Your task to perform on an android device: Open calendar and show me the second week of next month Image 0: 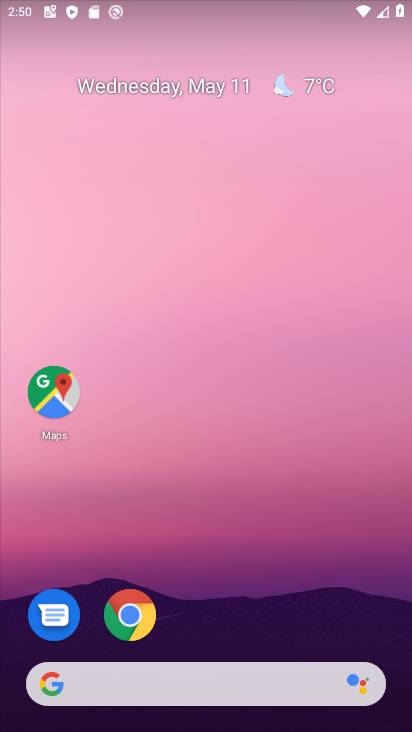
Step 0: drag from (300, 598) to (322, 94)
Your task to perform on an android device: Open calendar and show me the second week of next month Image 1: 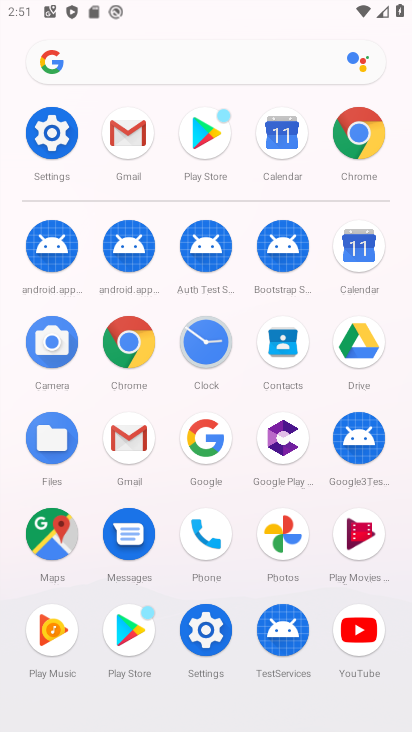
Step 1: click (365, 254)
Your task to perform on an android device: Open calendar and show me the second week of next month Image 2: 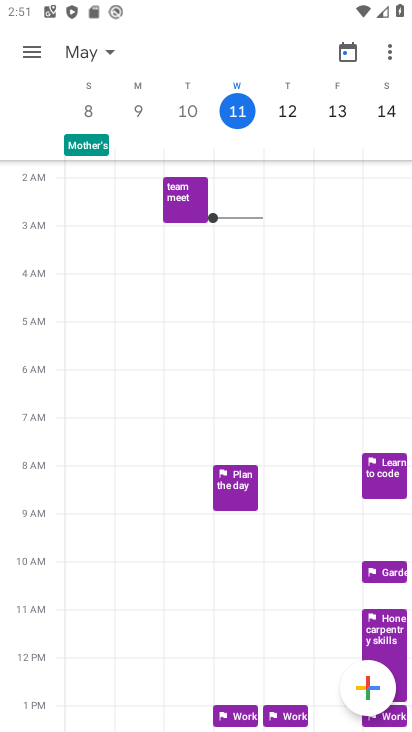
Step 2: click (92, 51)
Your task to perform on an android device: Open calendar and show me the second week of next month Image 3: 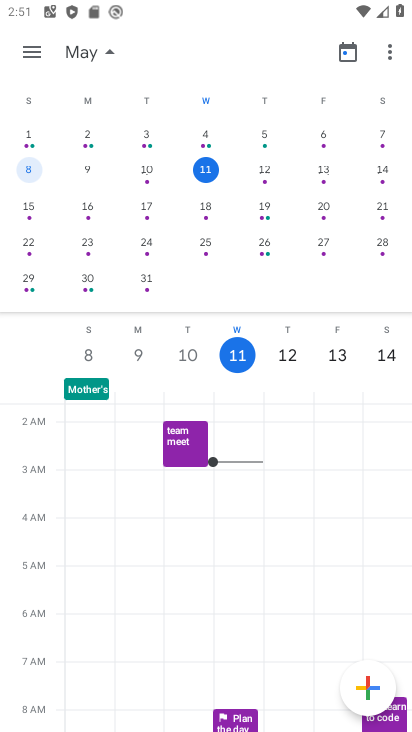
Step 3: drag from (309, 186) to (0, 199)
Your task to perform on an android device: Open calendar and show me the second week of next month Image 4: 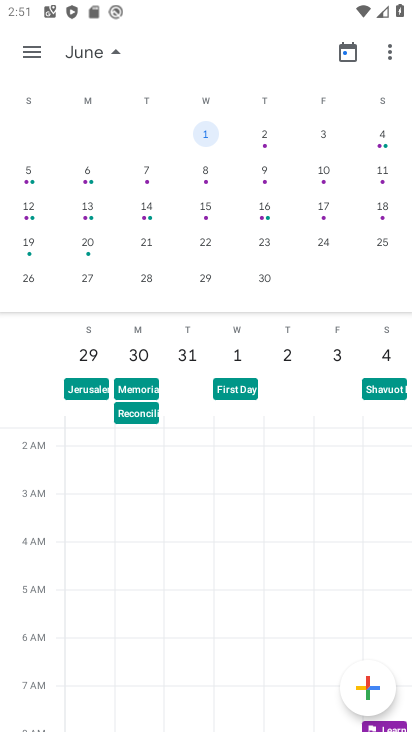
Step 4: click (86, 208)
Your task to perform on an android device: Open calendar and show me the second week of next month Image 5: 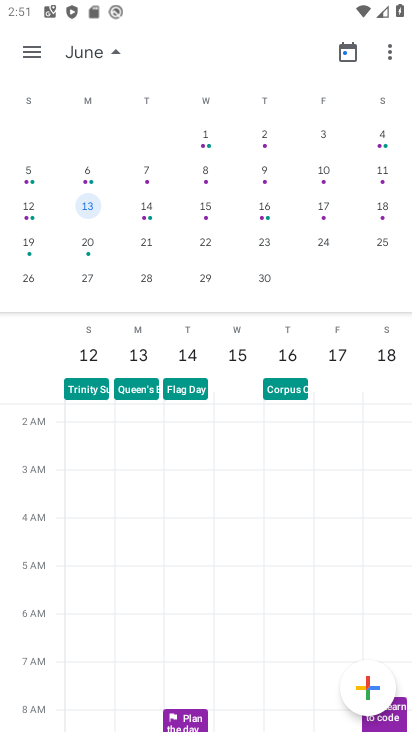
Step 5: click (28, 208)
Your task to perform on an android device: Open calendar and show me the second week of next month Image 6: 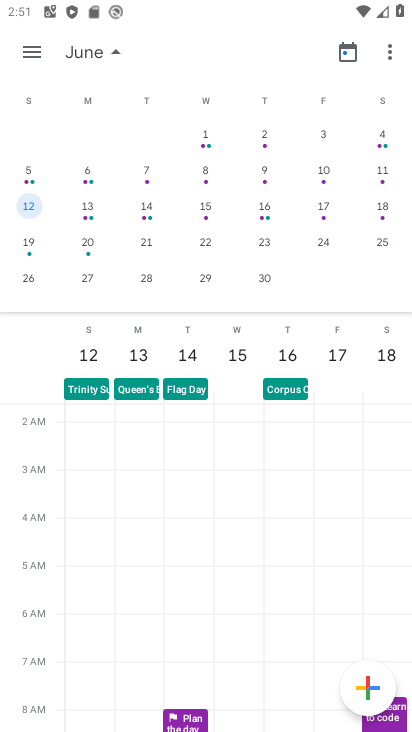
Step 6: task complete